Your task to perform on an android device: turn on showing notifications on the lock screen Image 0: 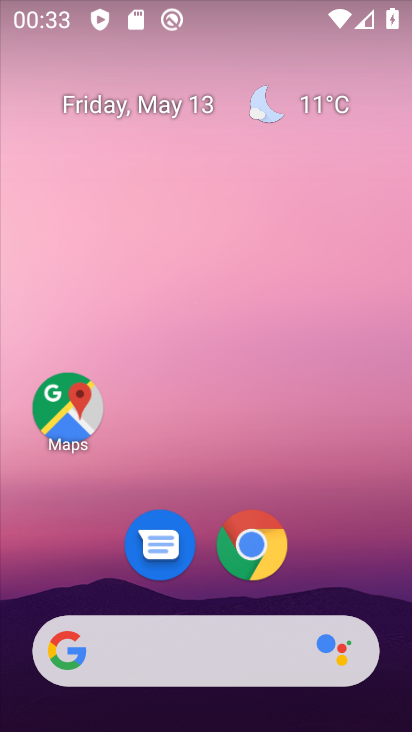
Step 0: drag from (309, 561) to (313, 178)
Your task to perform on an android device: turn on showing notifications on the lock screen Image 1: 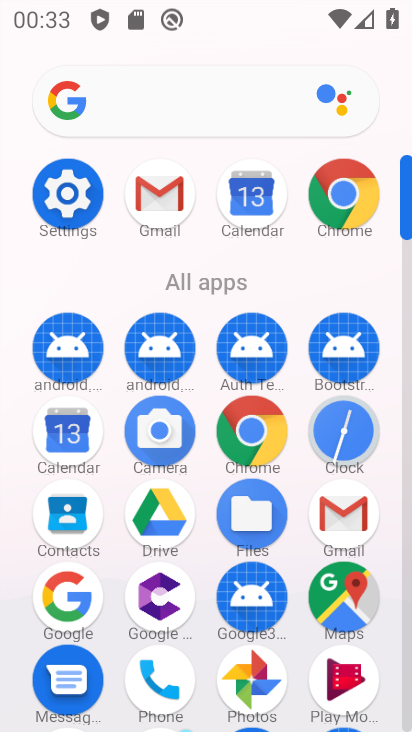
Step 1: click (61, 194)
Your task to perform on an android device: turn on showing notifications on the lock screen Image 2: 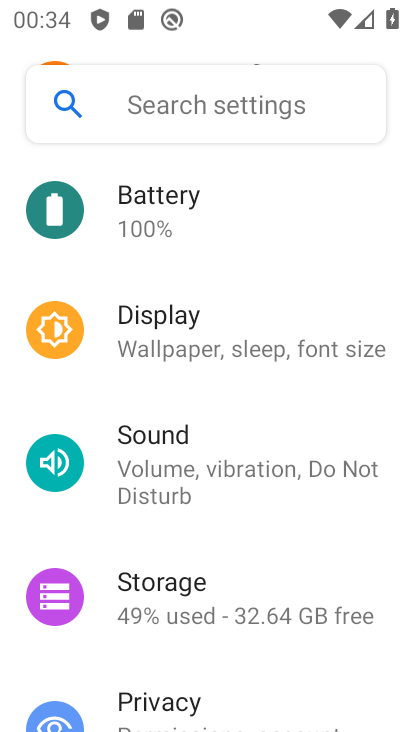
Step 2: drag from (198, 321) to (228, 719)
Your task to perform on an android device: turn on showing notifications on the lock screen Image 3: 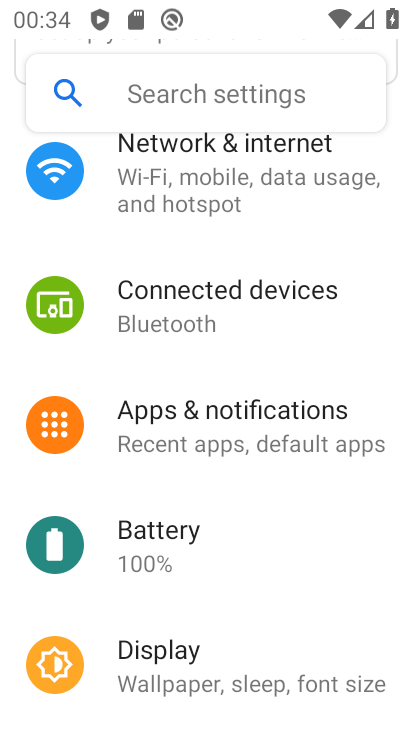
Step 3: click (225, 440)
Your task to perform on an android device: turn on showing notifications on the lock screen Image 4: 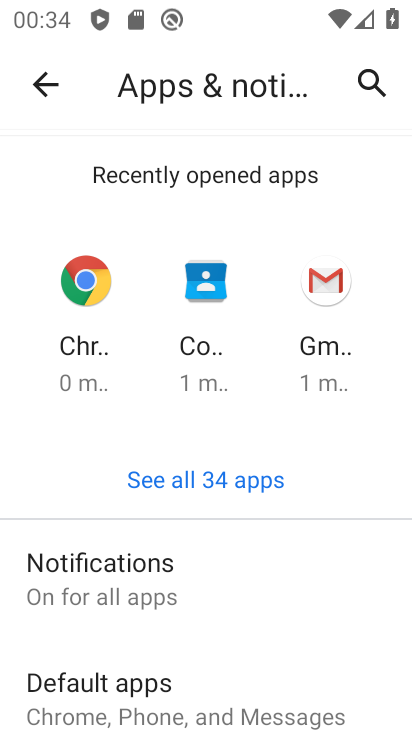
Step 4: click (143, 585)
Your task to perform on an android device: turn on showing notifications on the lock screen Image 5: 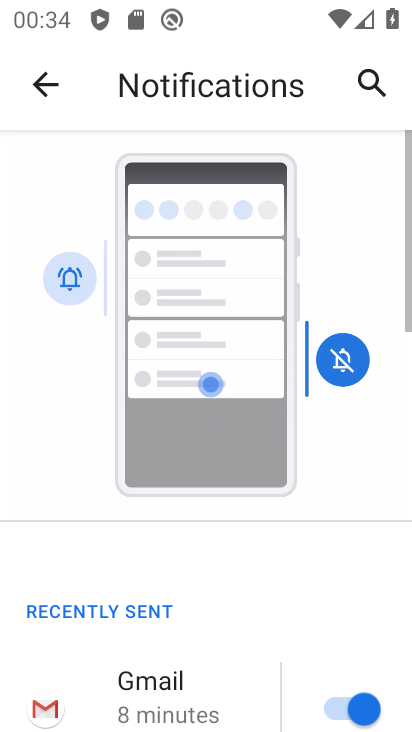
Step 5: drag from (238, 639) to (264, 269)
Your task to perform on an android device: turn on showing notifications on the lock screen Image 6: 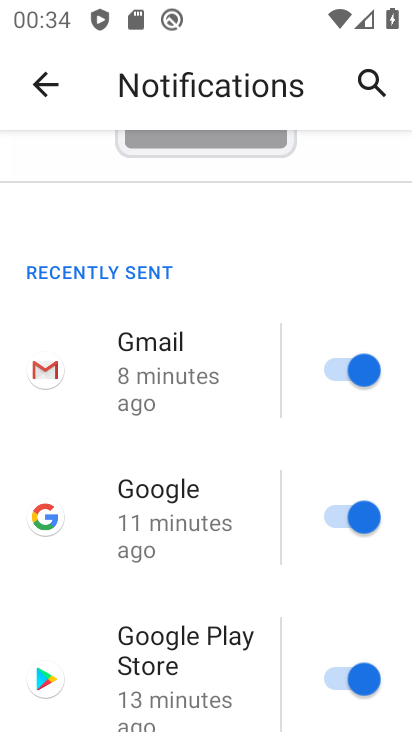
Step 6: drag from (249, 659) to (307, 190)
Your task to perform on an android device: turn on showing notifications on the lock screen Image 7: 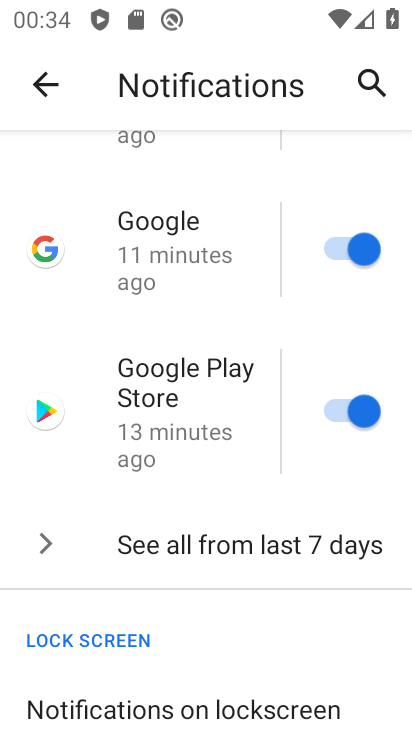
Step 7: click (241, 717)
Your task to perform on an android device: turn on showing notifications on the lock screen Image 8: 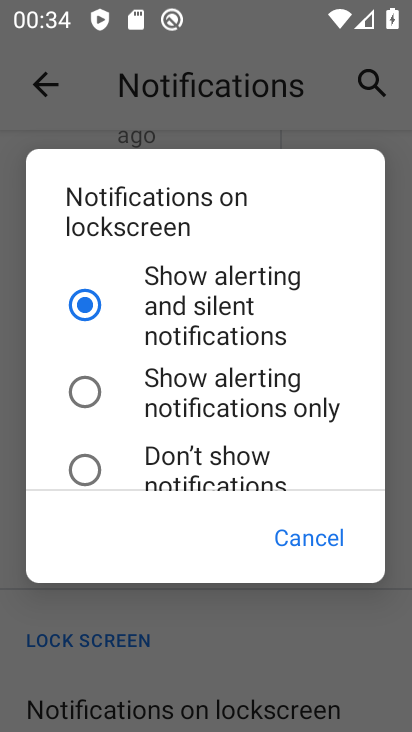
Step 8: task complete